Your task to perform on an android device: turn off airplane mode Image 0: 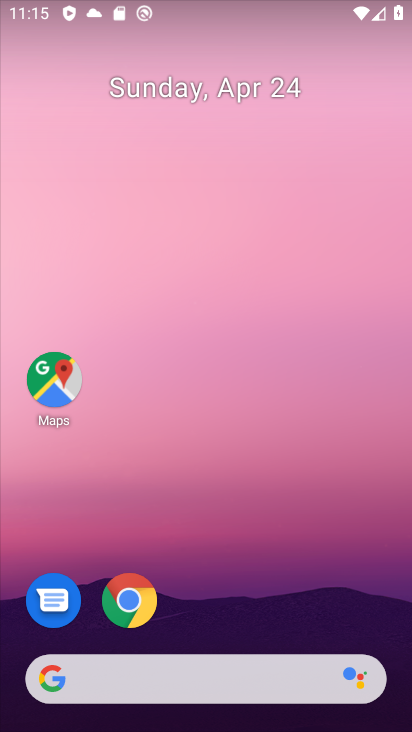
Step 0: drag from (243, 566) to (183, 10)
Your task to perform on an android device: turn off airplane mode Image 1: 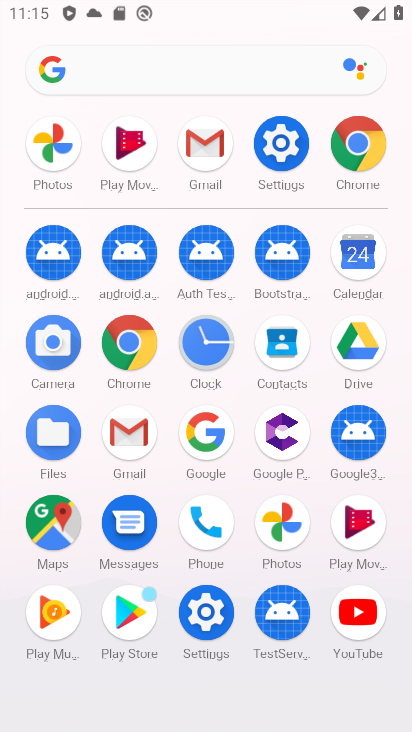
Step 1: click (280, 142)
Your task to perform on an android device: turn off airplane mode Image 2: 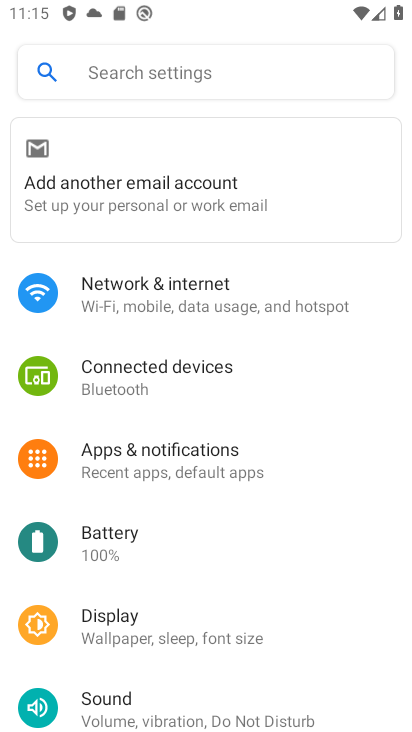
Step 2: click (164, 289)
Your task to perform on an android device: turn off airplane mode Image 3: 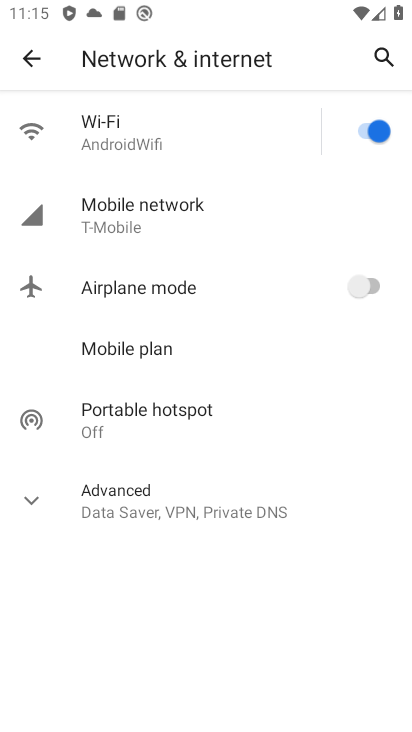
Step 3: task complete